Your task to perform on an android device: Show me productivity apps on the Play Store Image 0: 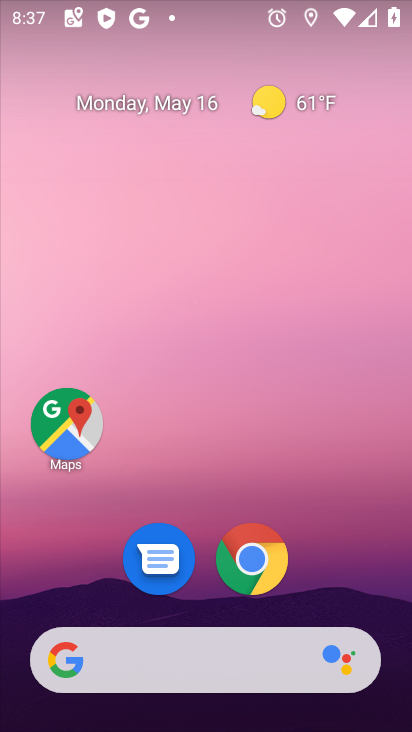
Step 0: drag from (344, 535) to (317, 193)
Your task to perform on an android device: Show me productivity apps on the Play Store Image 1: 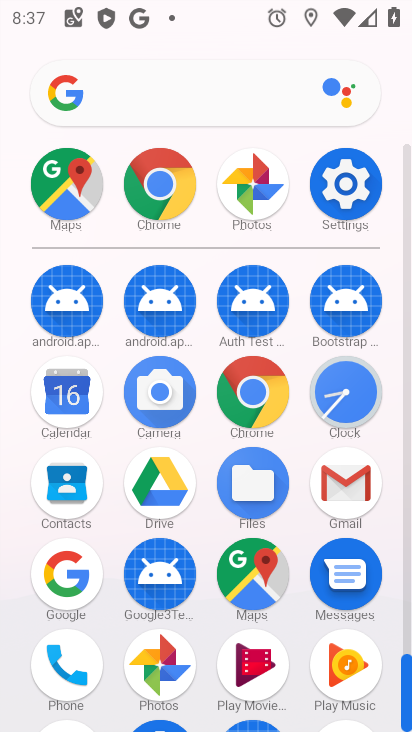
Step 1: drag from (209, 636) to (250, 364)
Your task to perform on an android device: Show me productivity apps on the Play Store Image 2: 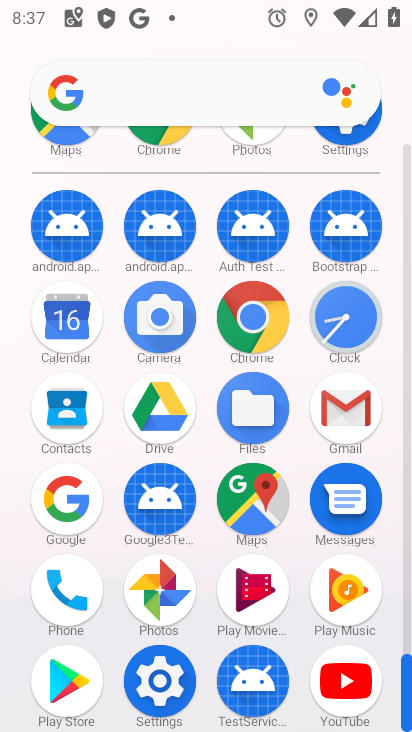
Step 2: click (66, 692)
Your task to perform on an android device: Show me productivity apps on the Play Store Image 3: 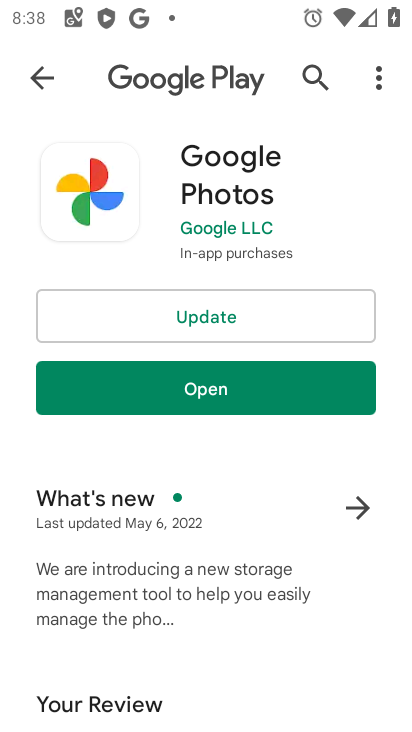
Step 3: click (54, 97)
Your task to perform on an android device: Show me productivity apps on the Play Store Image 4: 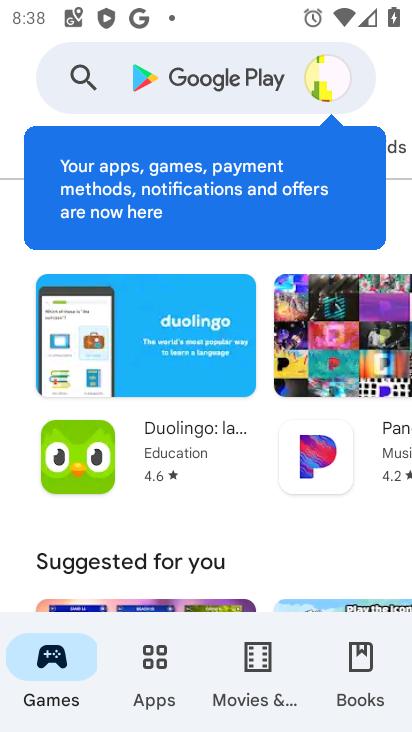
Step 4: click (158, 670)
Your task to perform on an android device: Show me productivity apps on the Play Store Image 5: 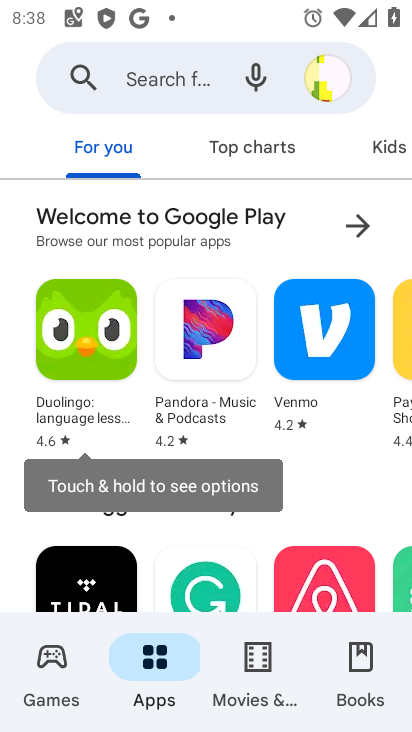
Step 5: drag from (351, 152) to (4, 155)
Your task to perform on an android device: Show me productivity apps on the Play Store Image 6: 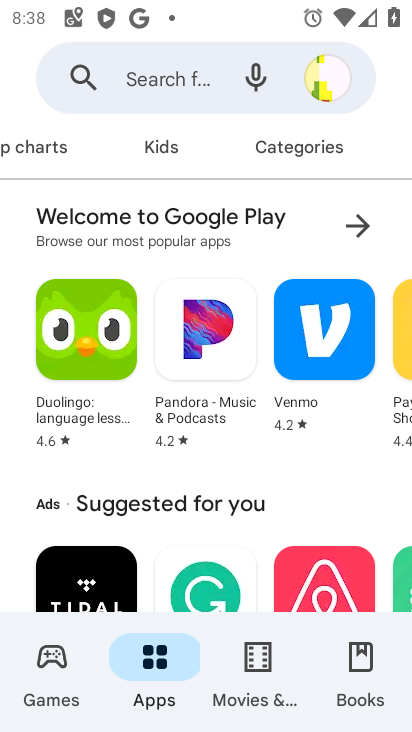
Step 6: click (325, 150)
Your task to perform on an android device: Show me productivity apps on the Play Store Image 7: 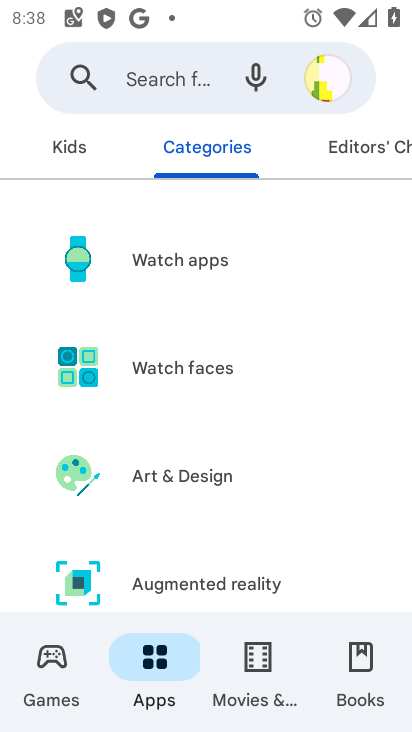
Step 7: drag from (305, 589) to (273, 249)
Your task to perform on an android device: Show me productivity apps on the Play Store Image 8: 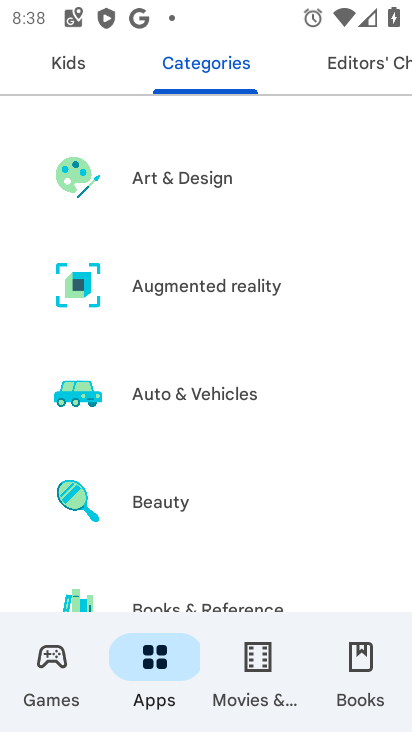
Step 8: drag from (319, 522) to (333, 185)
Your task to perform on an android device: Show me productivity apps on the Play Store Image 9: 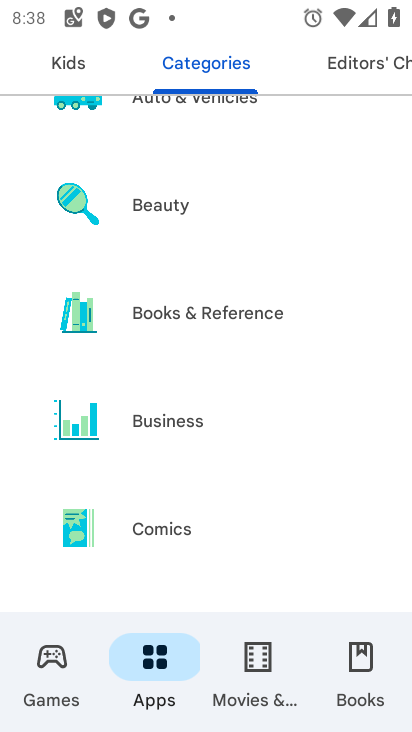
Step 9: drag from (314, 558) to (304, 179)
Your task to perform on an android device: Show me productivity apps on the Play Store Image 10: 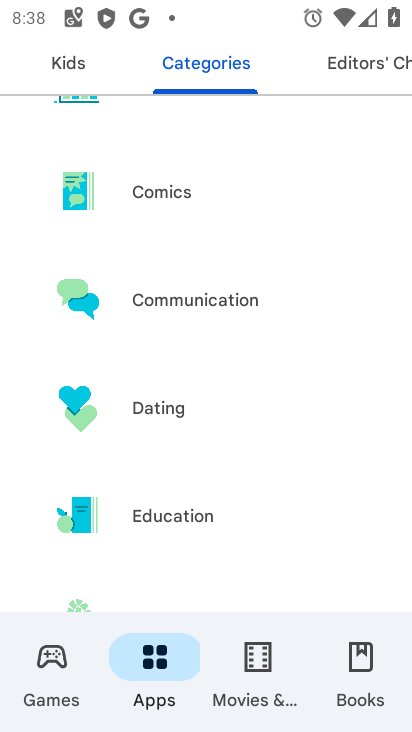
Step 10: drag from (304, 572) to (293, 213)
Your task to perform on an android device: Show me productivity apps on the Play Store Image 11: 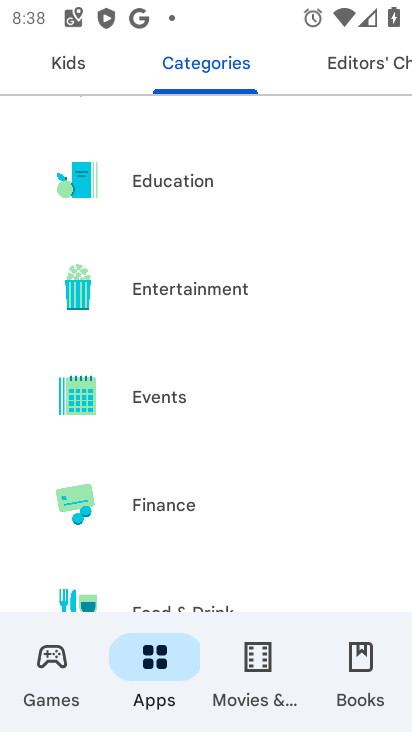
Step 11: drag from (280, 551) to (283, 205)
Your task to perform on an android device: Show me productivity apps on the Play Store Image 12: 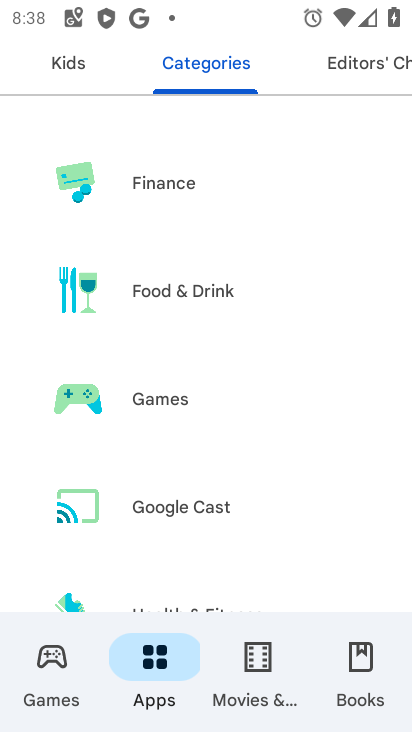
Step 12: drag from (292, 552) to (303, 187)
Your task to perform on an android device: Show me productivity apps on the Play Store Image 13: 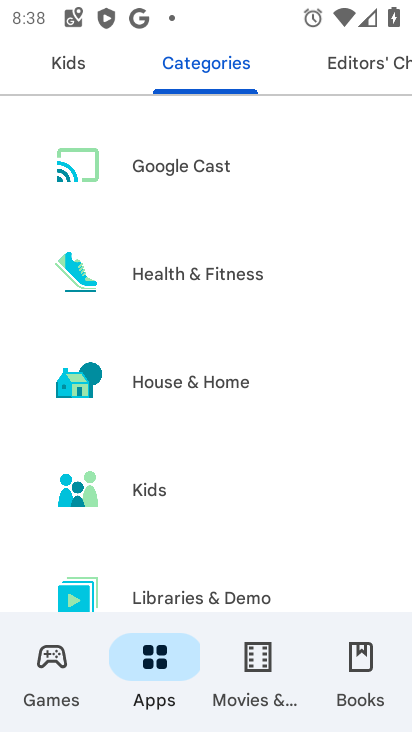
Step 13: drag from (292, 528) to (286, 181)
Your task to perform on an android device: Show me productivity apps on the Play Store Image 14: 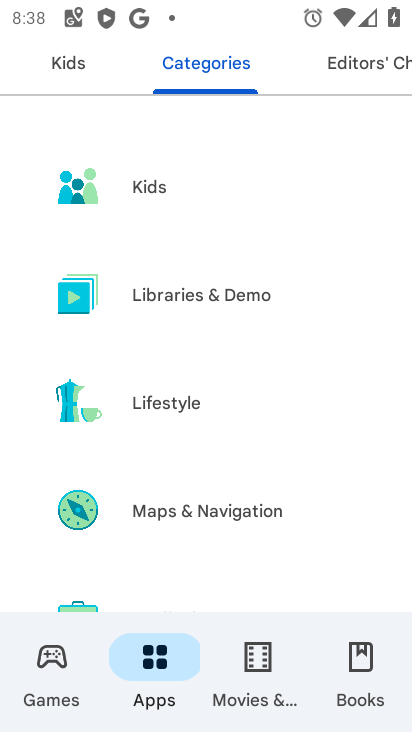
Step 14: drag from (276, 570) to (277, 194)
Your task to perform on an android device: Show me productivity apps on the Play Store Image 15: 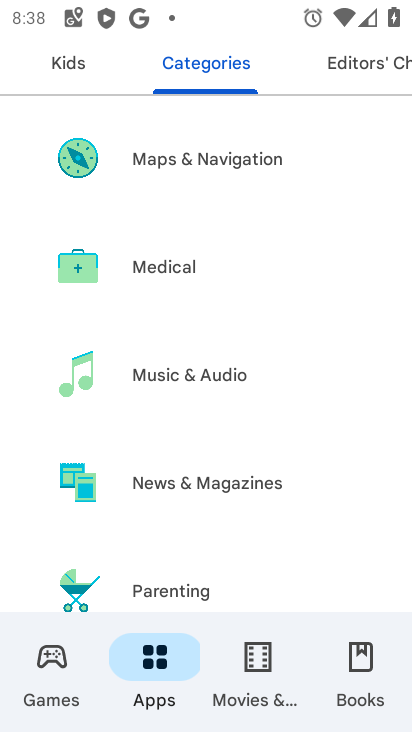
Step 15: drag from (262, 566) to (251, 180)
Your task to perform on an android device: Show me productivity apps on the Play Store Image 16: 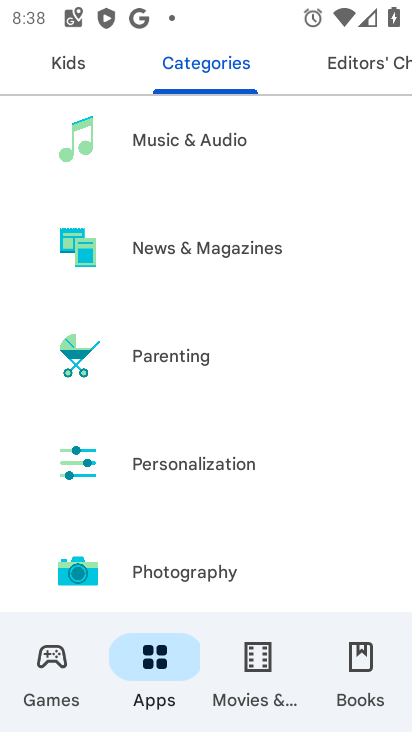
Step 16: drag from (266, 526) to (285, 245)
Your task to perform on an android device: Show me productivity apps on the Play Store Image 17: 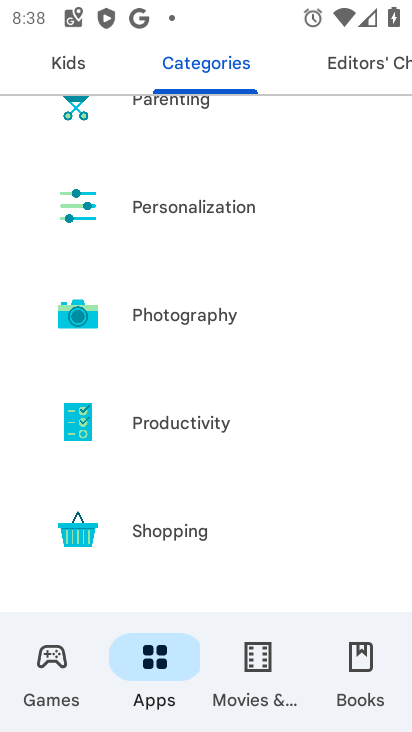
Step 17: click (209, 434)
Your task to perform on an android device: Show me productivity apps on the Play Store Image 18: 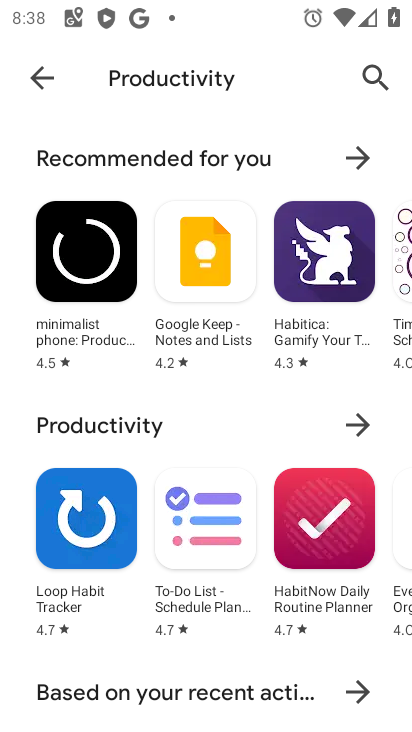
Step 18: task complete